Your task to perform on an android device: Open the phone app and click the voicemail tab. Image 0: 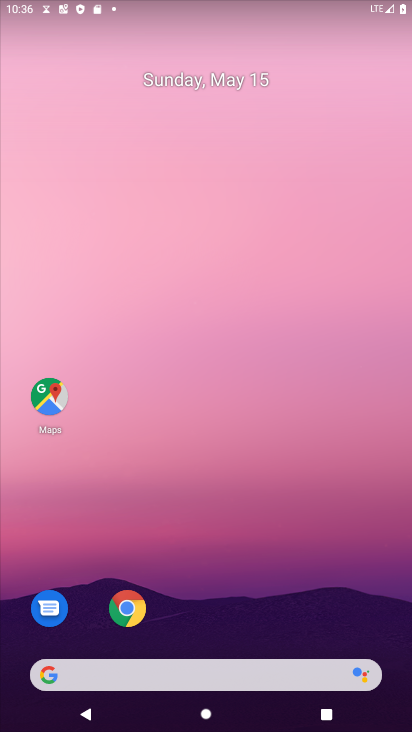
Step 0: drag from (300, 463) to (304, 42)
Your task to perform on an android device: Open the phone app and click the voicemail tab. Image 1: 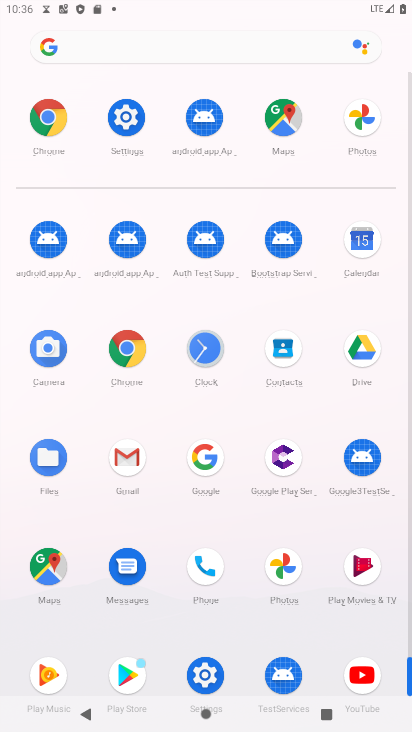
Step 1: click (208, 567)
Your task to perform on an android device: Open the phone app and click the voicemail tab. Image 2: 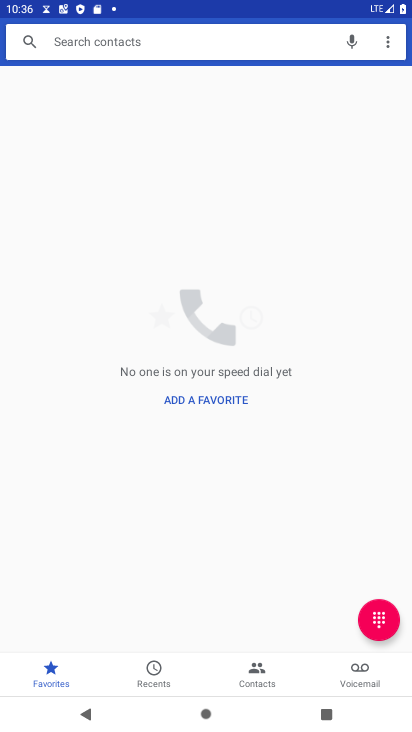
Step 2: click (363, 675)
Your task to perform on an android device: Open the phone app and click the voicemail tab. Image 3: 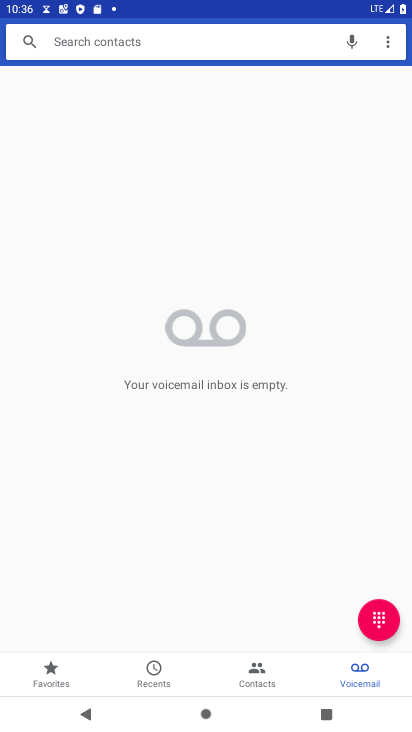
Step 3: task complete